Your task to perform on an android device: View the shopping cart on newegg. Search for "razer nari" on newegg, select the first entry, add it to the cart, then select checkout. Image 0: 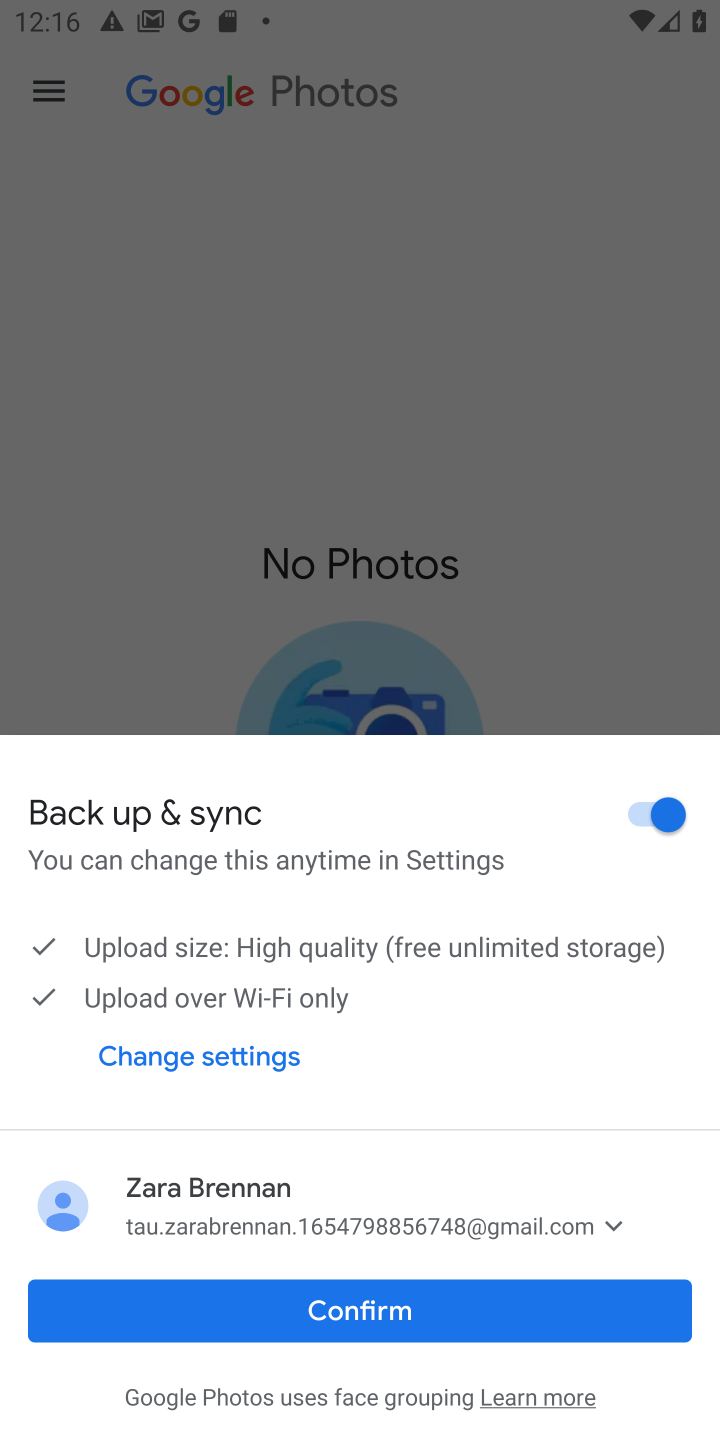
Step 0: press home button
Your task to perform on an android device: View the shopping cart on newegg. Search for "razer nari" on newegg, select the first entry, add it to the cart, then select checkout. Image 1: 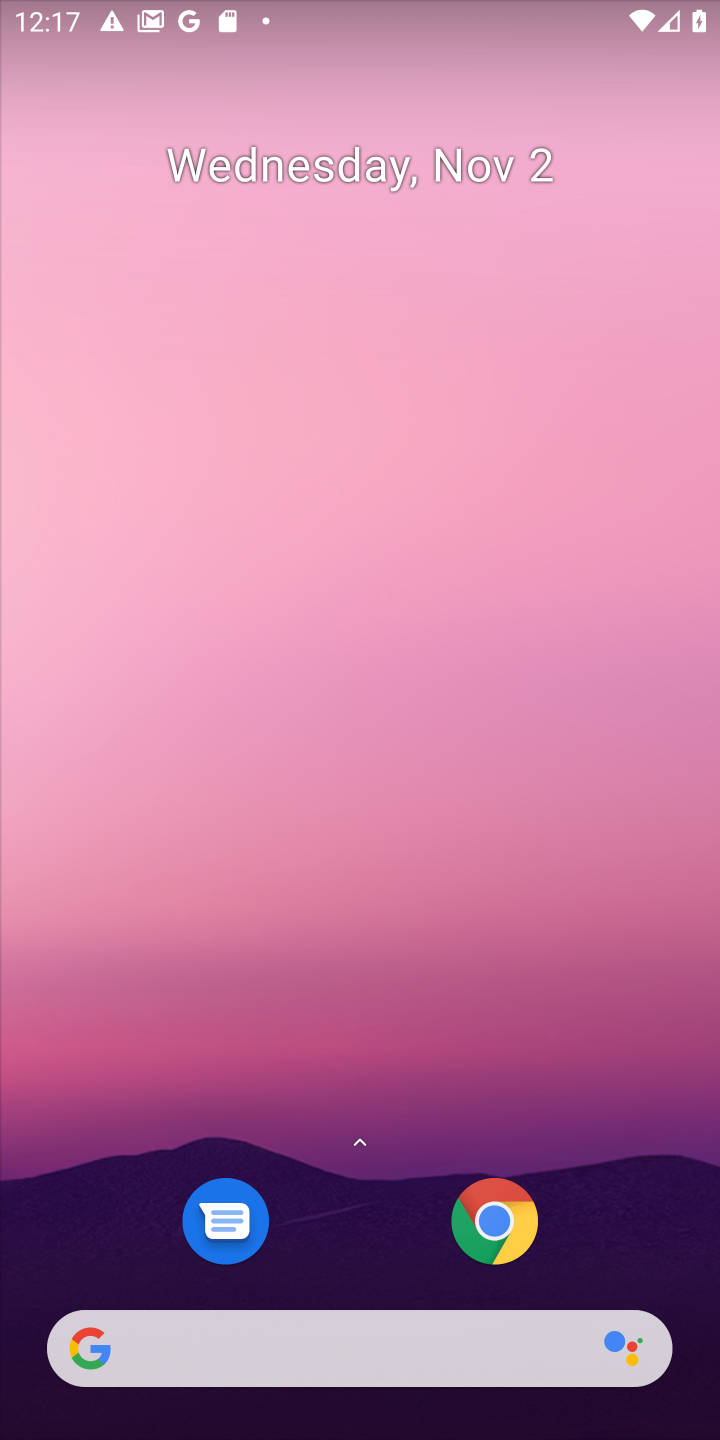
Step 1: click (343, 1365)
Your task to perform on an android device: View the shopping cart on newegg. Search for "razer nari" on newegg, select the first entry, add it to the cart, then select checkout. Image 2: 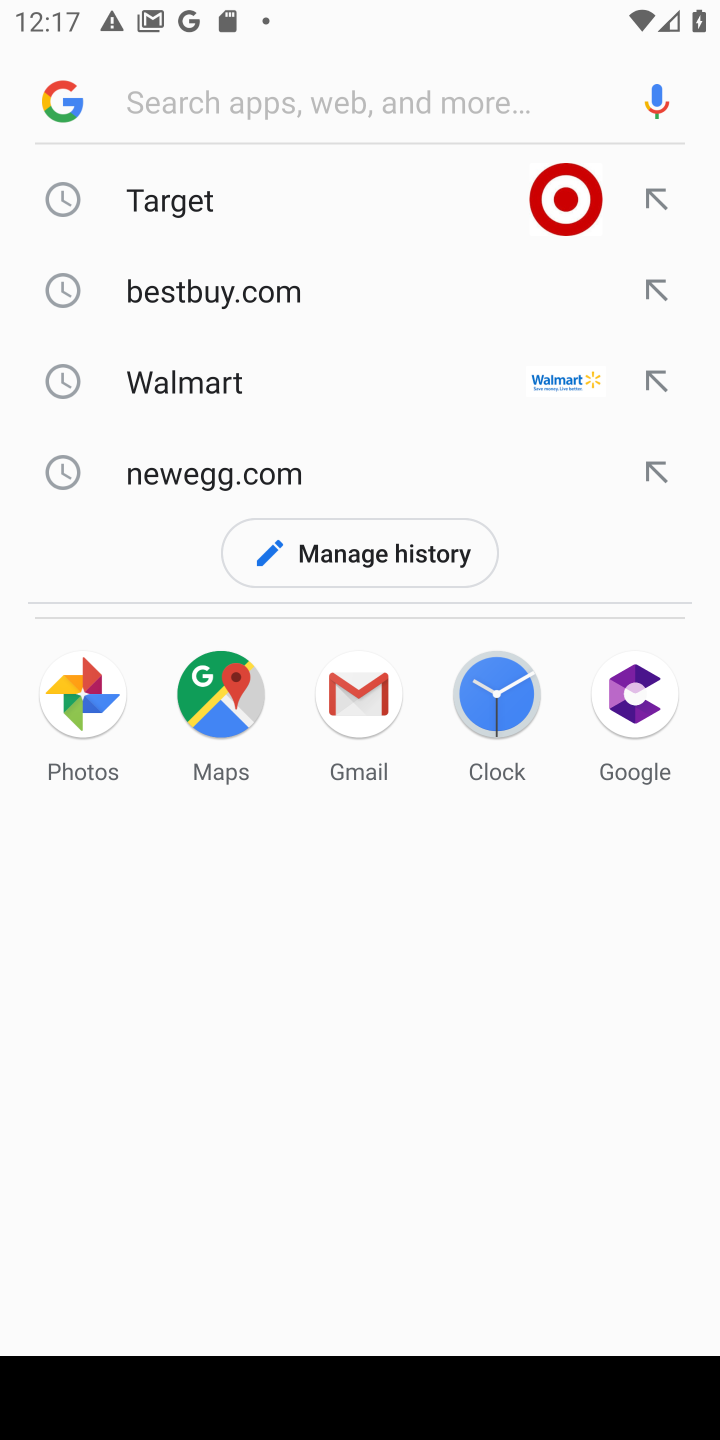
Step 2: type "newegg"
Your task to perform on an android device: View the shopping cart on newegg. Search for "razer nari" on newegg, select the first entry, add it to the cart, then select checkout. Image 3: 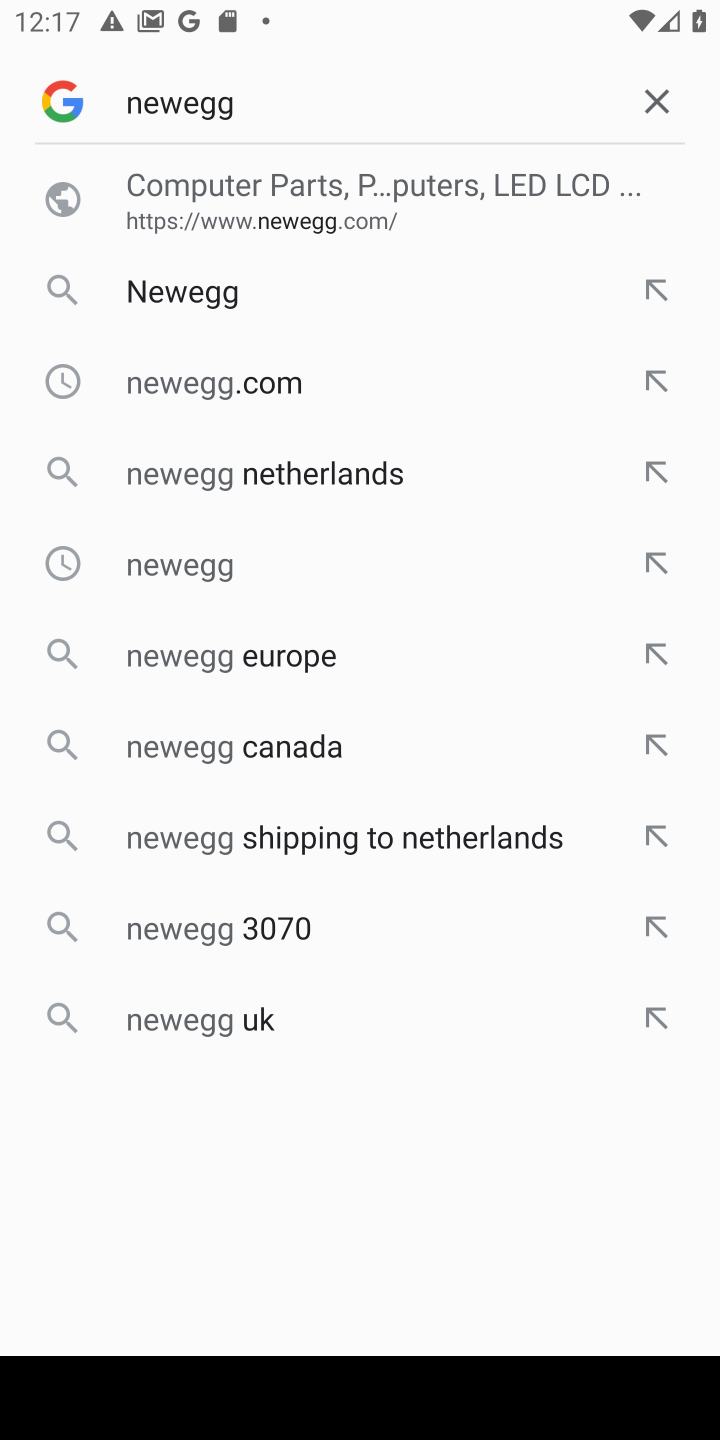
Step 3: click (276, 236)
Your task to perform on an android device: View the shopping cart on newegg. Search for "razer nari" on newegg, select the first entry, add it to the cart, then select checkout. Image 4: 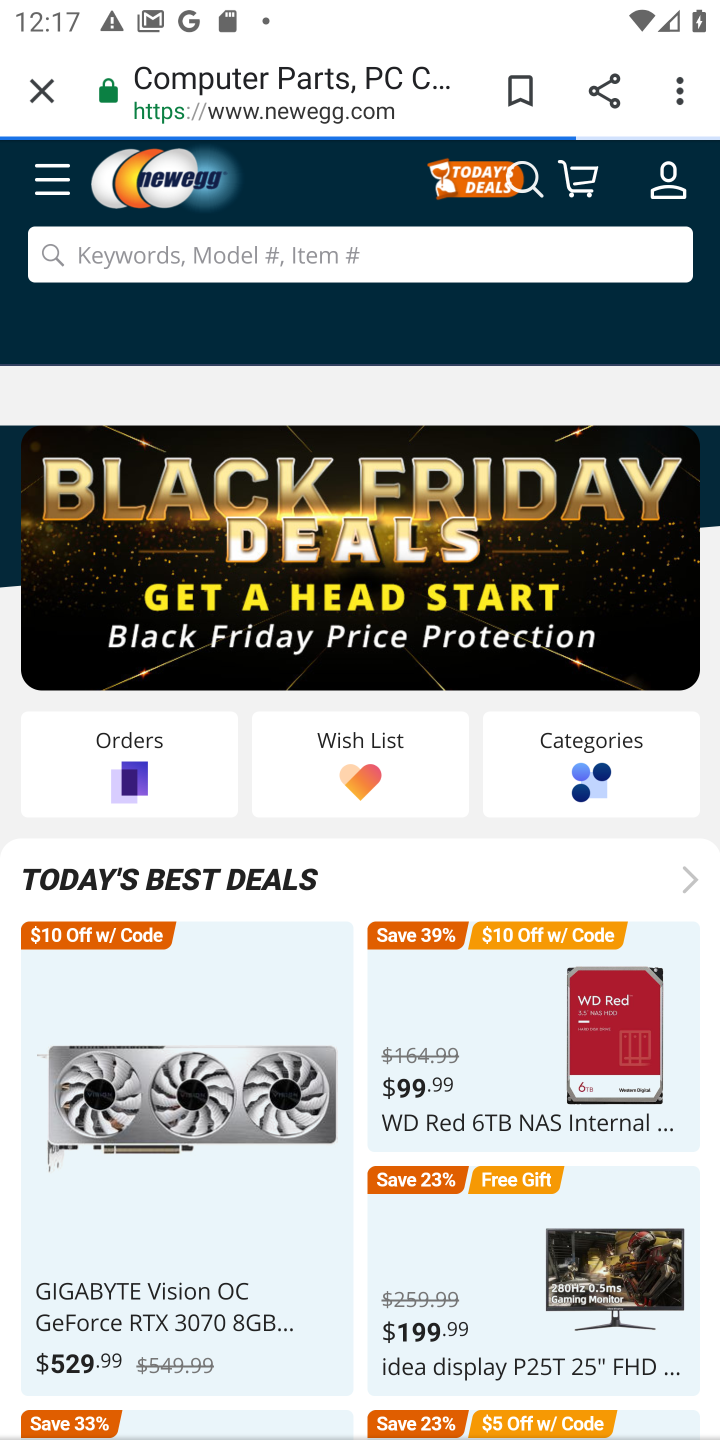
Step 4: click (538, 193)
Your task to perform on an android device: View the shopping cart on newegg. Search for "razer nari" on newegg, select the first entry, add it to the cart, then select checkout. Image 5: 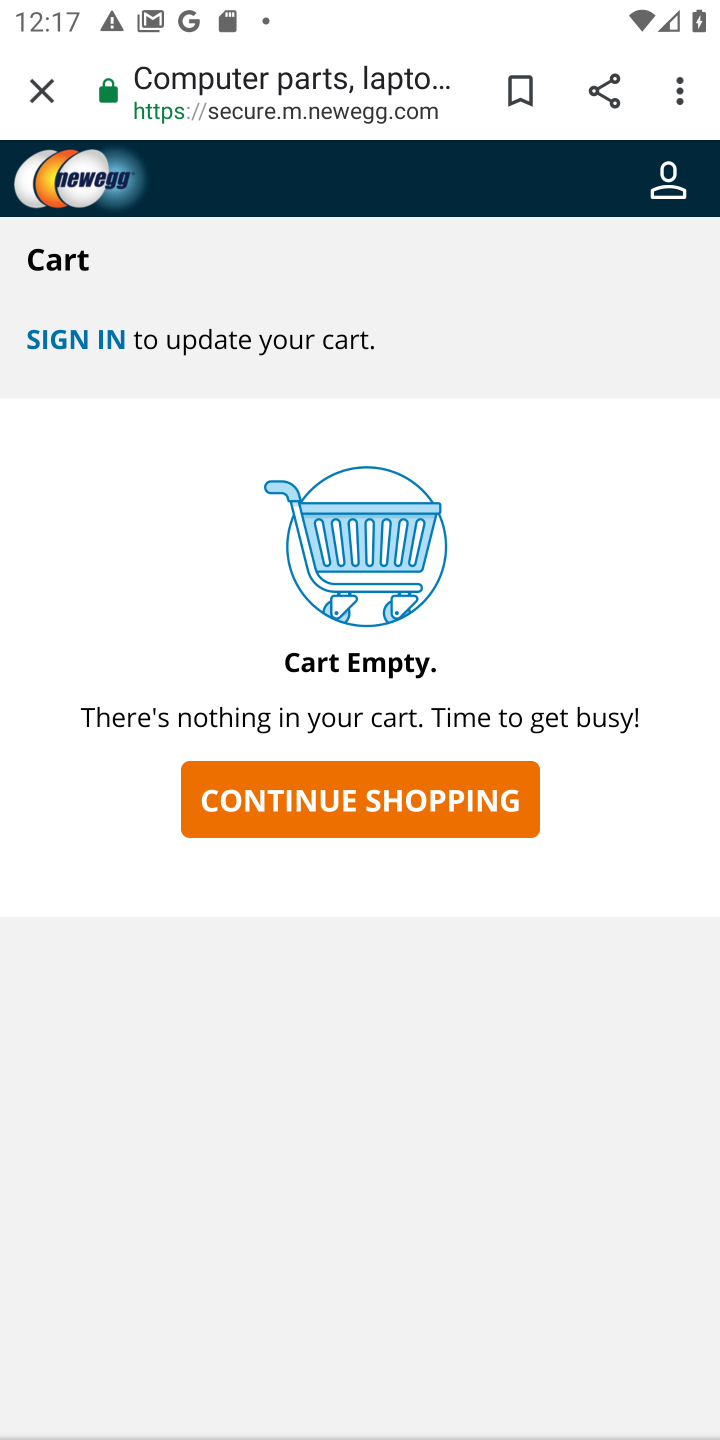
Step 5: task complete